Your task to perform on an android device: see tabs open on other devices in the chrome app Image 0: 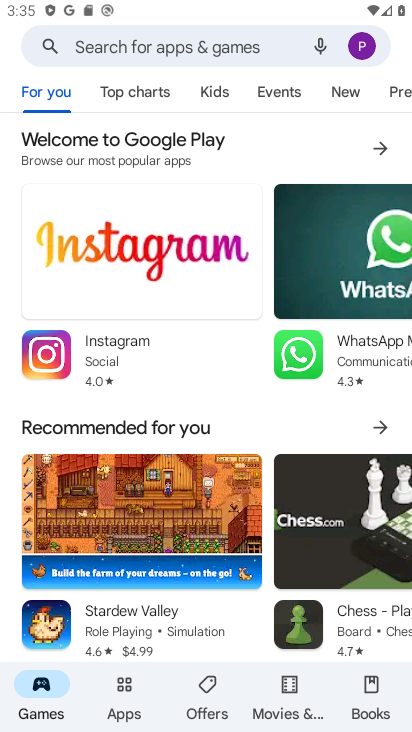
Step 0: press home button
Your task to perform on an android device: see tabs open on other devices in the chrome app Image 1: 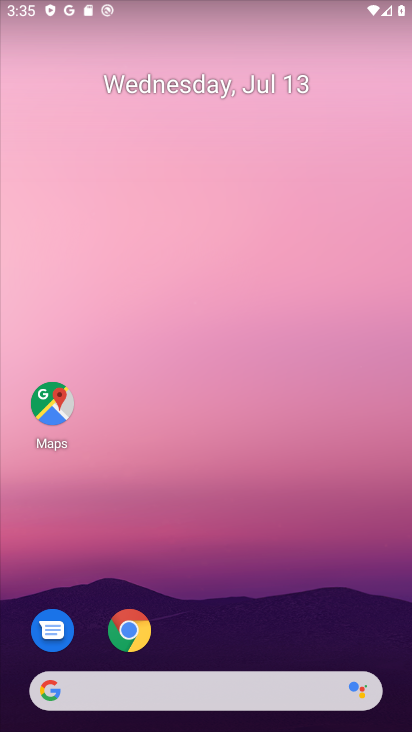
Step 1: click (122, 627)
Your task to perform on an android device: see tabs open on other devices in the chrome app Image 2: 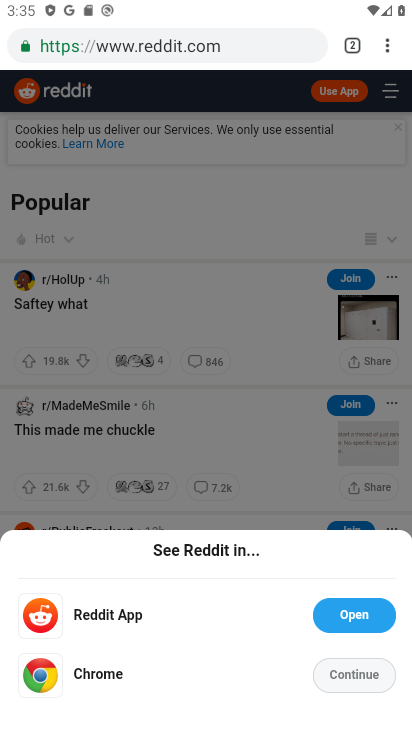
Step 2: click (340, 682)
Your task to perform on an android device: see tabs open on other devices in the chrome app Image 3: 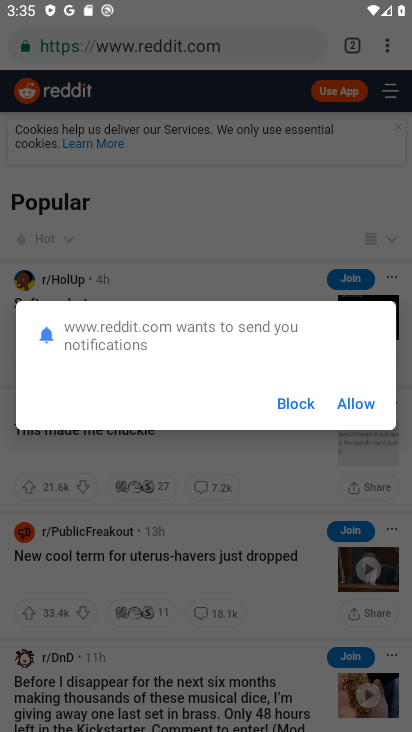
Step 3: click (290, 402)
Your task to perform on an android device: see tabs open on other devices in the chrome app Image 4: 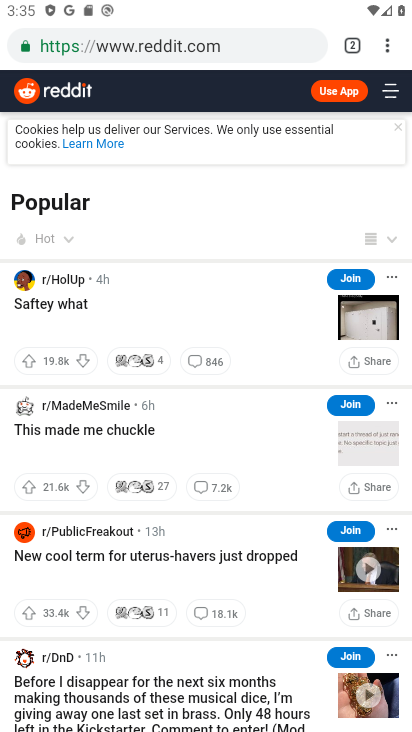
Step 4: click (386, 53)
Your task to perform on an android device: see tabs open on other devices in the chrome app Image 5: 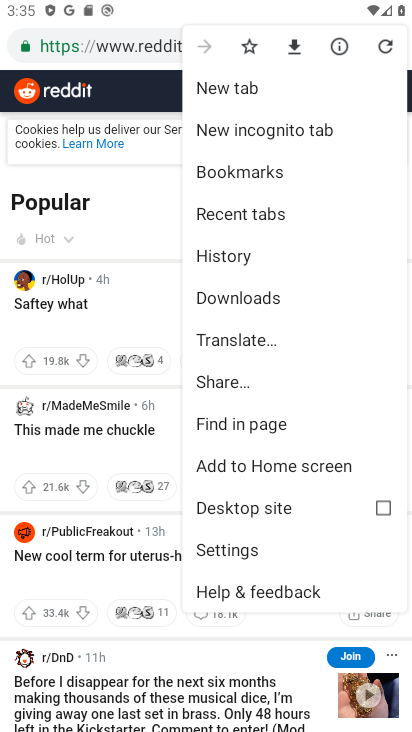
Step 5: click (210, 216)
Your task to perform on an android device: see tabs open on other devices in the chrome app Image 6: 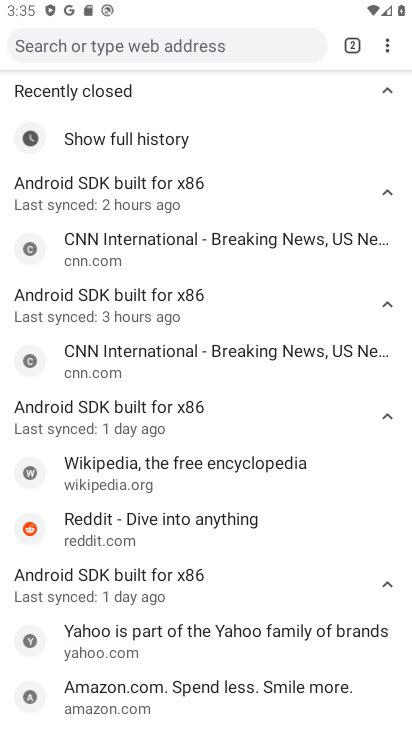
Step 6: task complete